Your task to perform on an android device: Open calendar and show me the fourth week of next month Image 0: 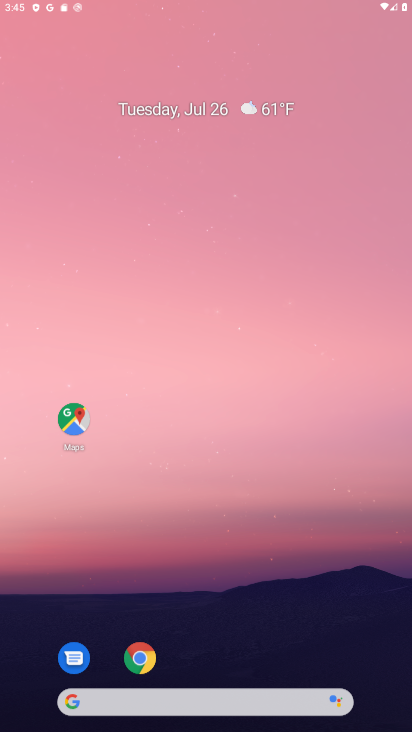
Step 0: press home button
Your task to perform on an android device: Open calendar and show me the fourth week of next month Image 1: 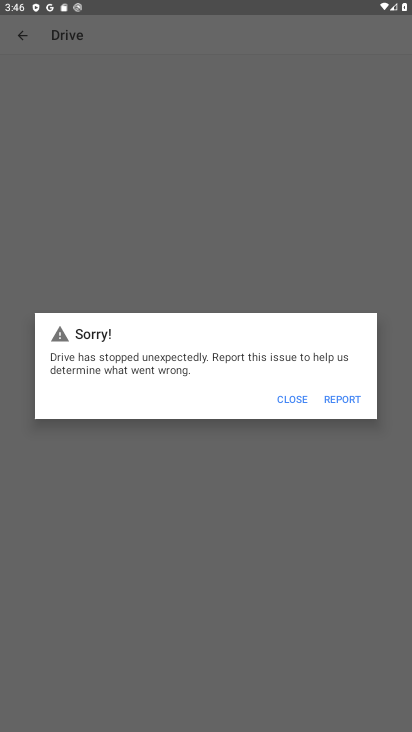
Step 1: press home button
Your task to perform on an android device: Open calendar and show me the fourth week of next month Image 2: 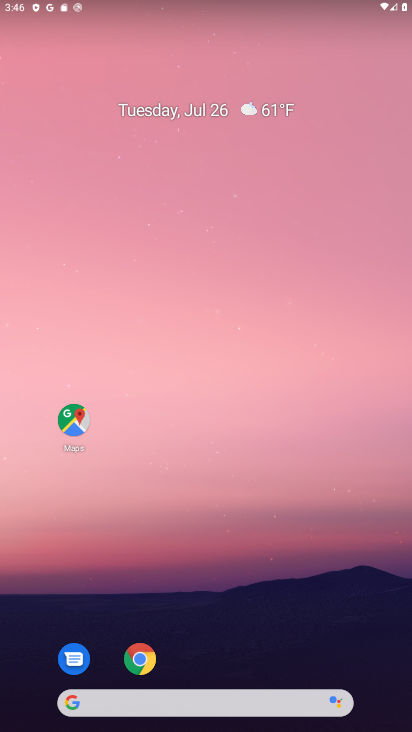
Step 2: drag from (284, 627) to (204, 56)
Your task to perform on an android device: Open calendar and show me the fourth week of next month Image 3: 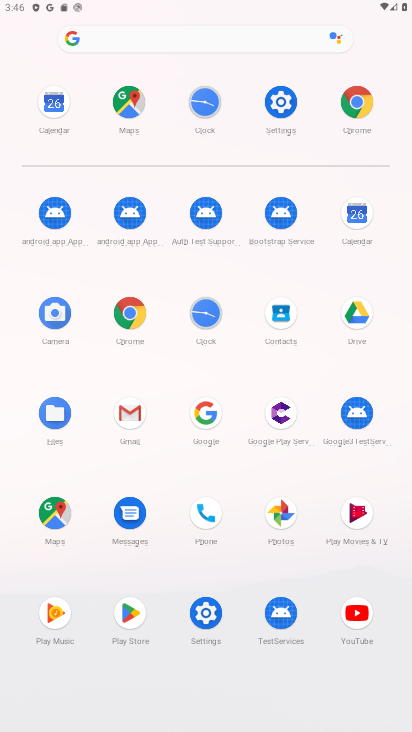
Step 3: click (359, 210)
Your task to perform on an android device: Open calendar and show me the fourth week of next month Image 4: 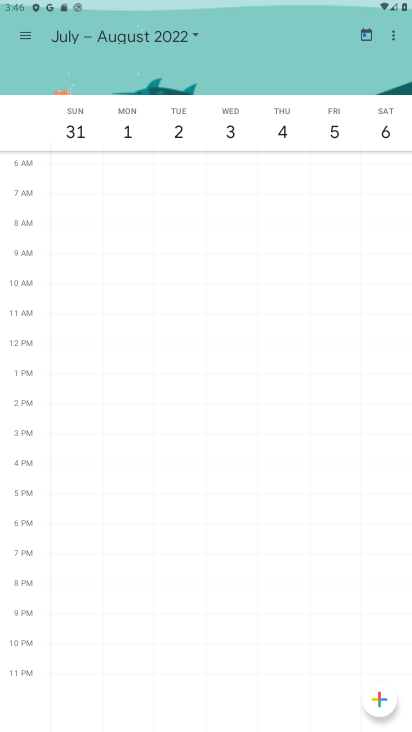
Step 4: click (181, 42)
Your task to perform on an android device: Open calendar and show me the fourth week of next month Image 5: 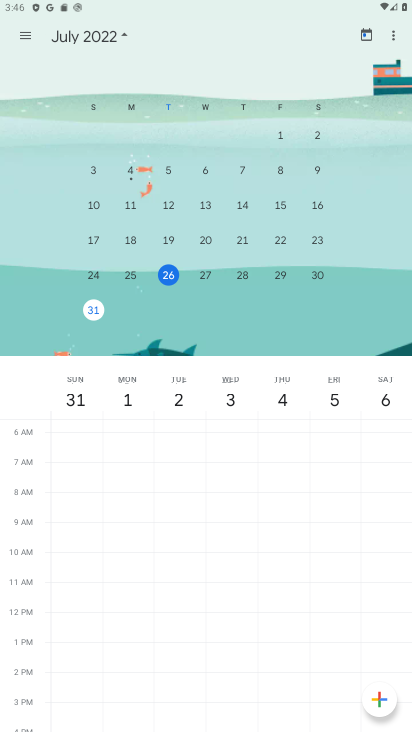
Step 5: drag from (310, 248) to (3, 236)
Your task to perform on an android device: Open calendar and show me the fourth week of next month Image 6: 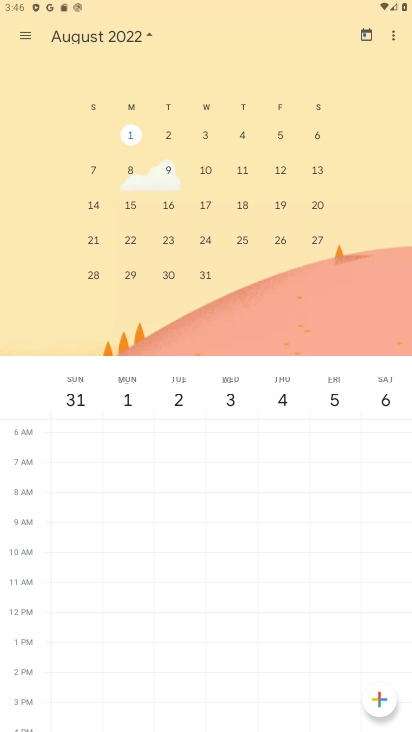
Step 6: click (166, 239)
Your task to perform on an android device: Open calendar and show me the fourth week of next month Image 7: 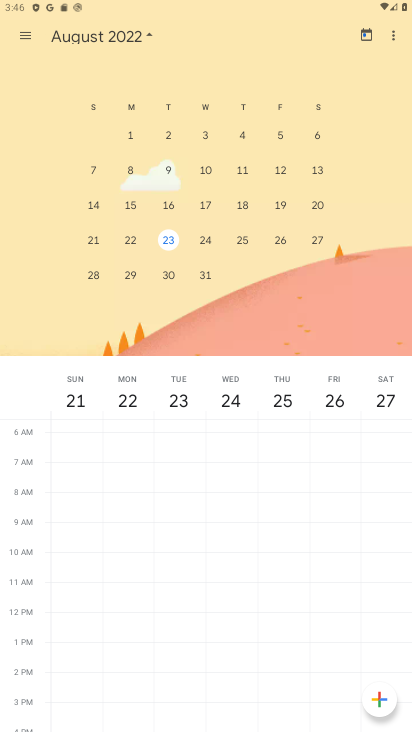
Step 7: task complete